Your task to perform on an android device: stop showing notifications on the lock screen Image 0: 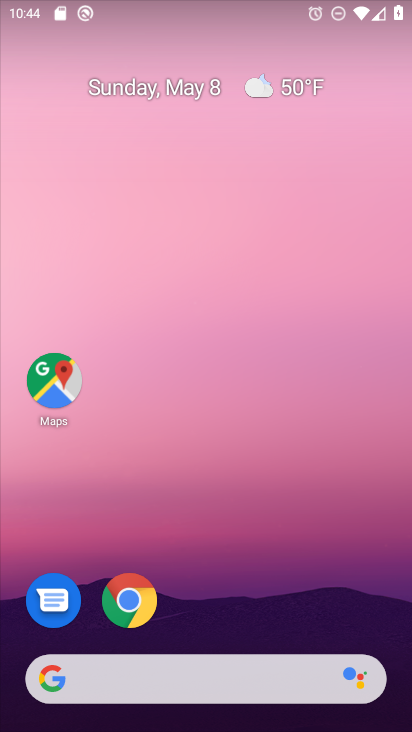
Step 0: drag from (215, 727) to (215, 156)
Your task to perform on an android device: stop showing notifications on the lock screen Image 1: 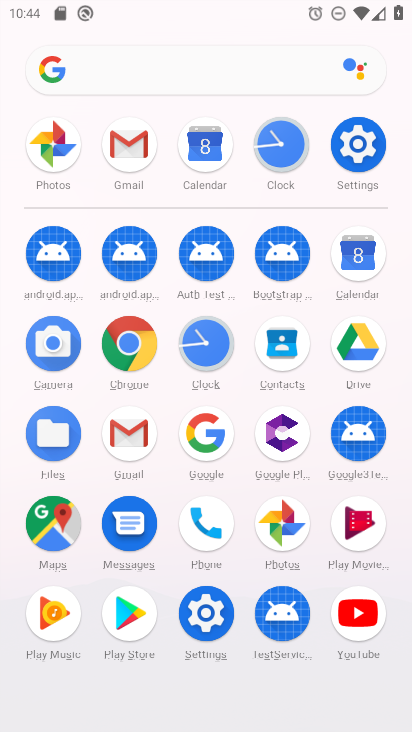
Step 1: click (356, 144)
Your task to perform on an android device: stop showing notifications on the lock screen Image 2: 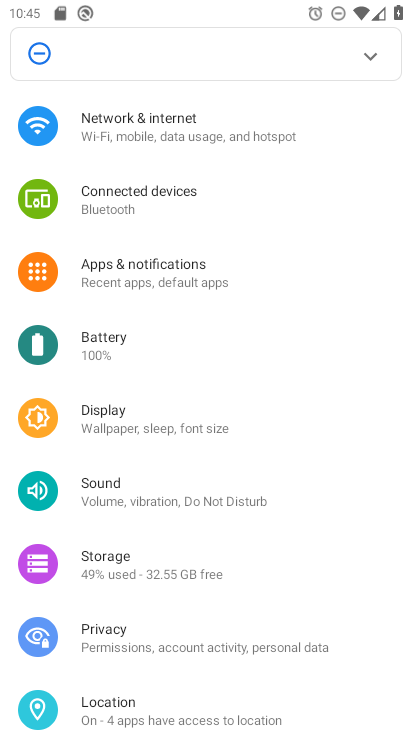
Step 2: click (143, 267)
Your task to perform on an android device: stop showing notifications on the lock screen Image 3: 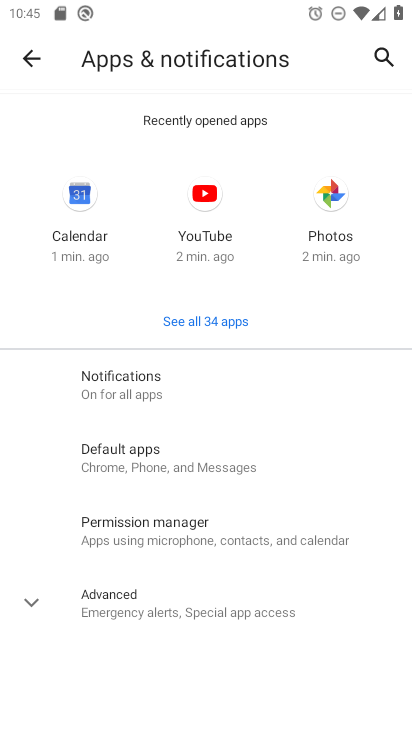
Step 3: click (129, 377)
Your task to perform on an android device: stop showing notifications on the lock screen Image 4: 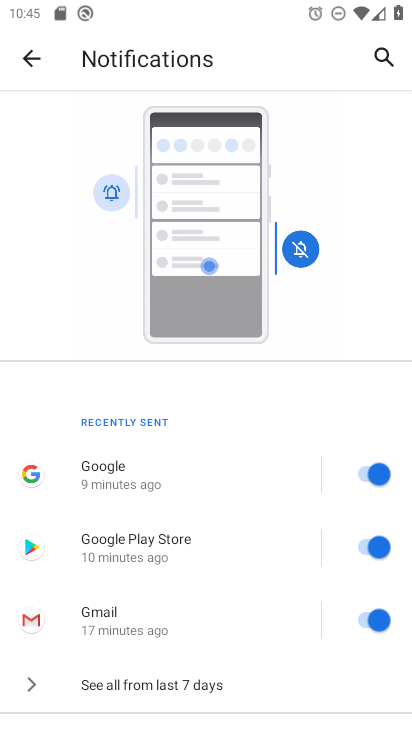
Step 4: drag from (188, 678) to (210, 358)
Your task to perform on an android device: stop showing notifications on the lock screen Image 5: 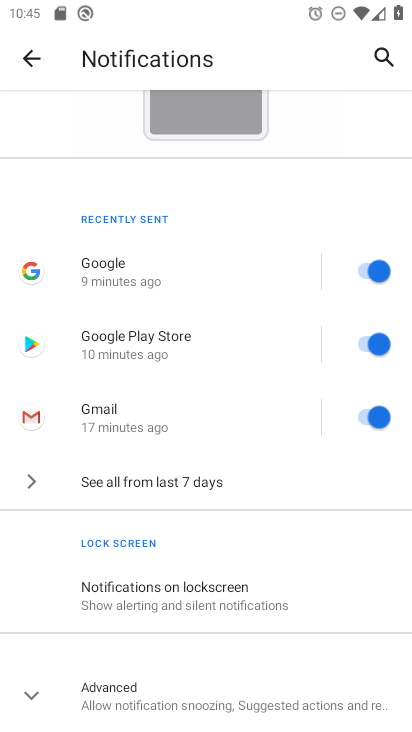
Step 5: click (185, 592)
Your task to perform on an android device: stop showing notifications on the lock screen Image 6: 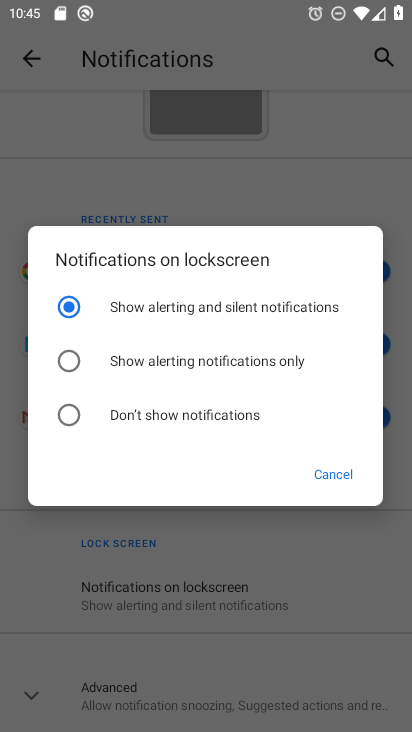
Step 6: click (62, 409)
Your task to perform on an android device: stop showing notifications on the lock screen Image 7: 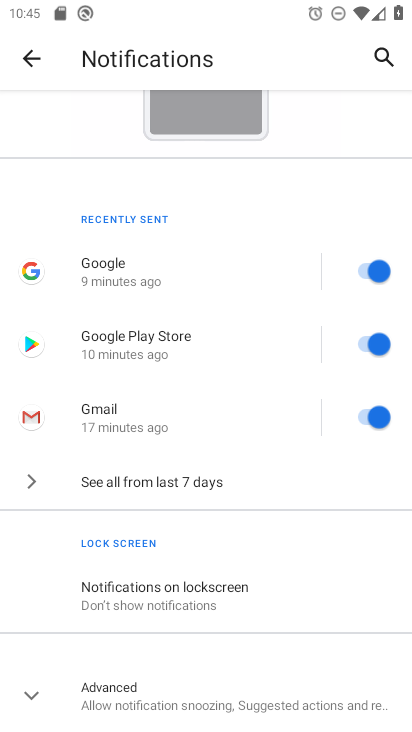
Step 7: task complete